Your task to perform on an android device: Open Google Maps Image 0: 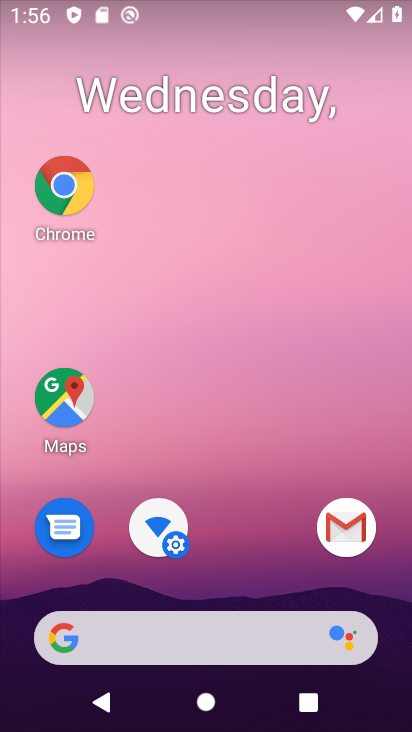
Step 0: drag from (263, 617) to (309, 170)
Your task to perform on an android device: Open Google Maps Image 1: 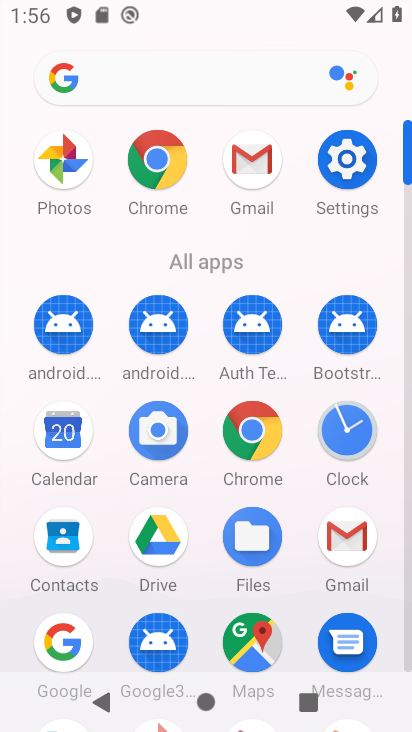
Step 1: drag from (215, 683) to (194, 360)
Your task to perform on an android device: Open Google Maps Image 2: 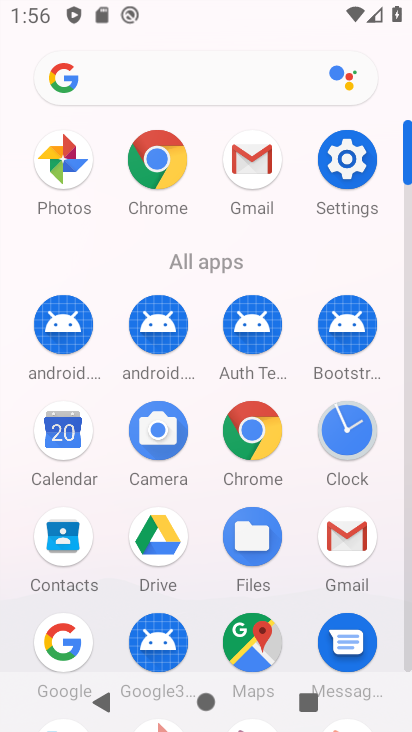
Step 2: click (251, 641)
Your task to perform on an android device: Open Google Maps Image 3: 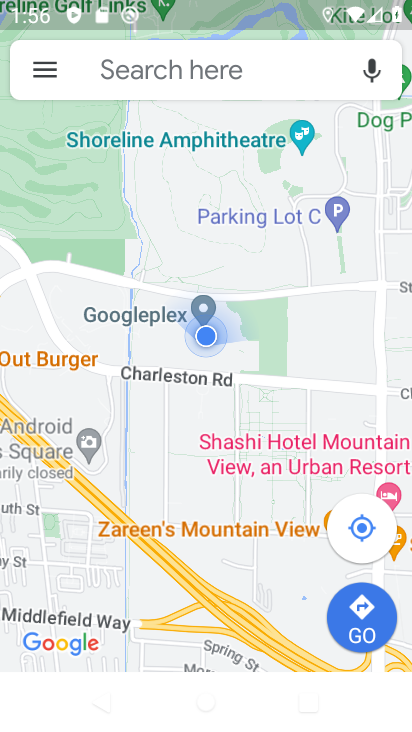
Step 3: task complete